Your task to perform on an android device: change the clock style Image 0: 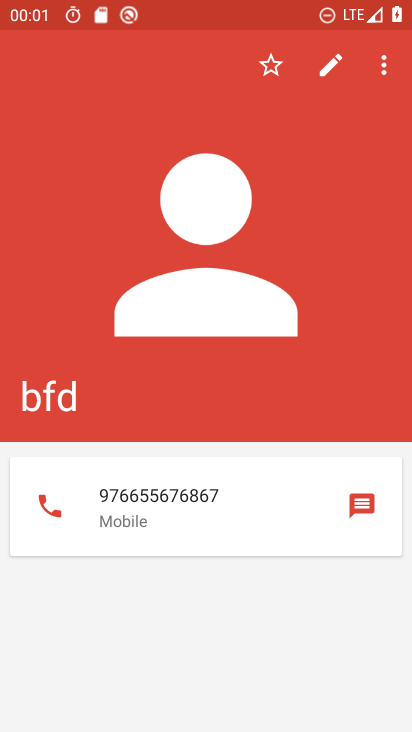
Step 0: press home button
Your task to perform on an android device: change the clock style Image 1: 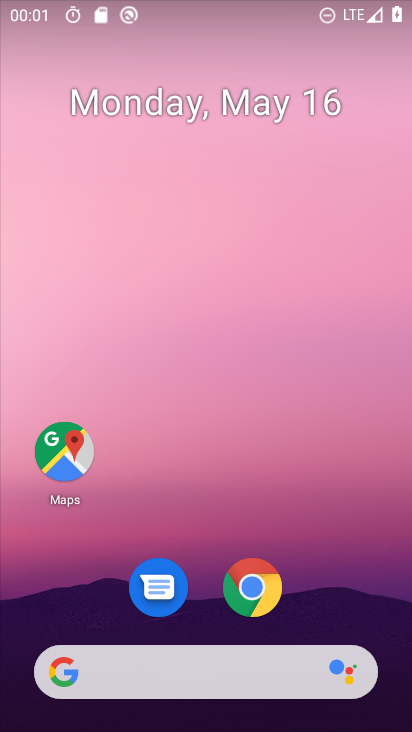
Step 1: drag from (196, 628) to (203, 212)
Your task to perform on an android device: change the clock style Image 2: 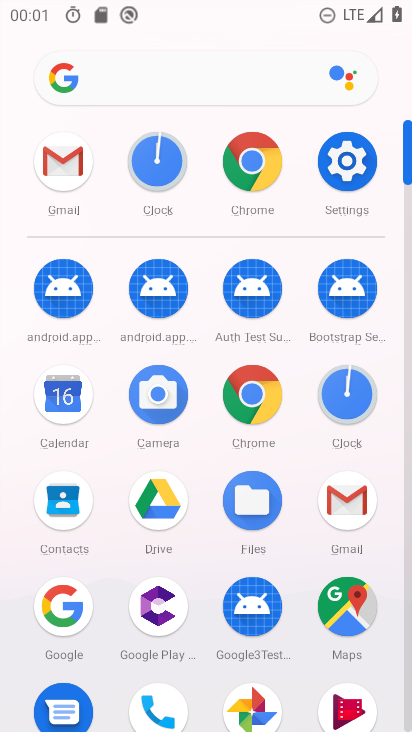
Step 2: click (351, 152)
Your task to perform on an android device: change the clock style Image 3: 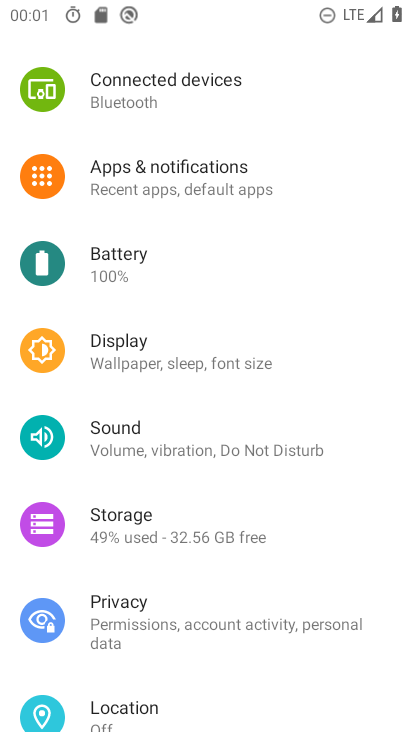
Step 3: press home button
Your task to perform on an android device: change the clock style Image 4: 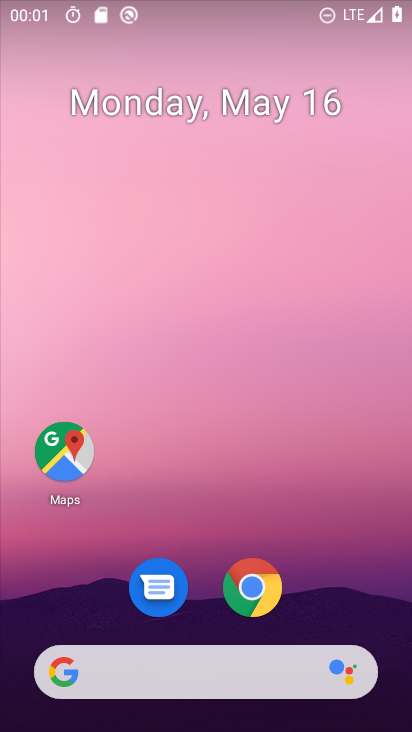
Step 4: drag from (207, 581) to (219, 195)
Your task to perform on an android device: change the clock style Image 5: 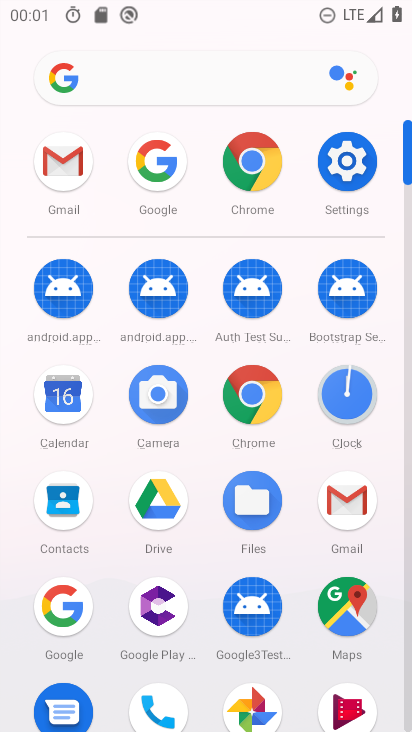
Step 5: click (331, 393)
Your task to perform on an android device: change the clock style Image 6: 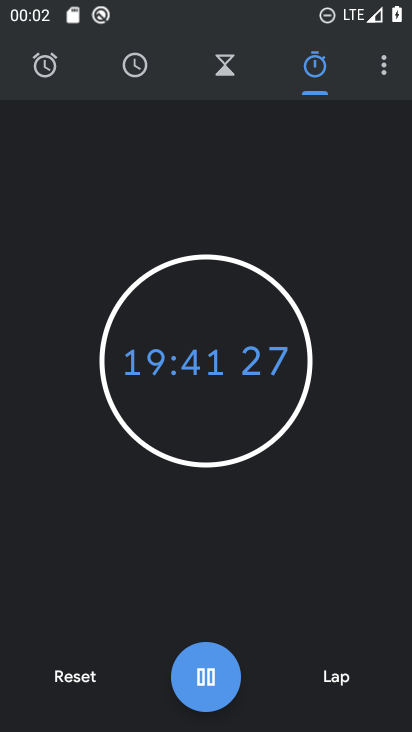
Step 6: click (381, 51)
Your task to perform on an android device: change the clock style Image 7: 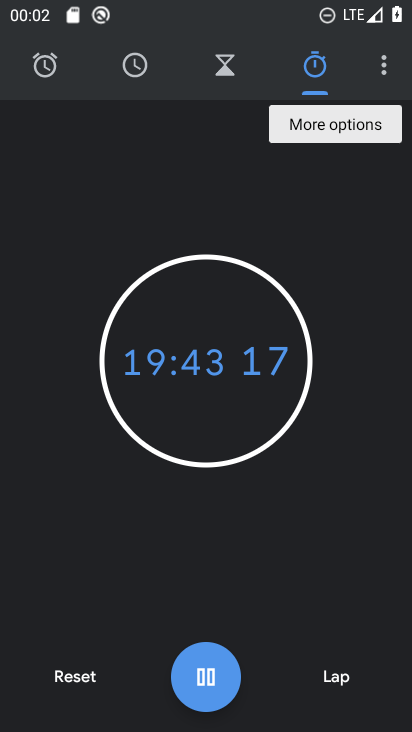
Step 7: click (381, 51)
Your task to perform on an android device: change the clock style Image 8: 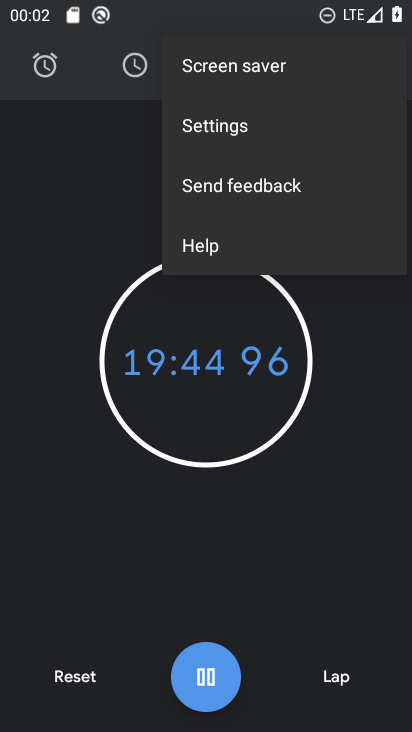
Step 8: click (285, 121)
Your task to perform on an android device: change the clock style Image 9: 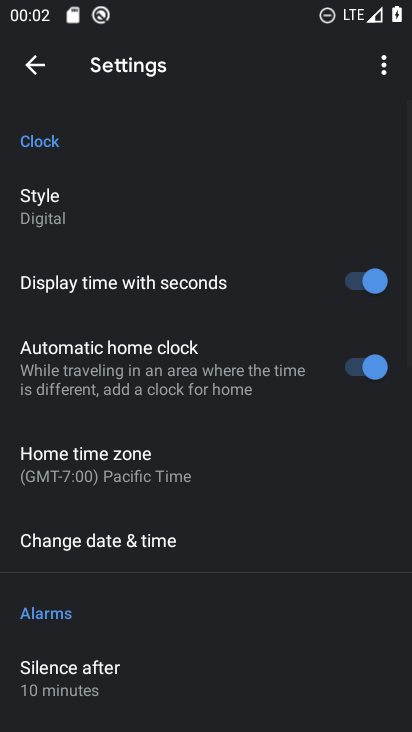
Step 9: click (78, 201)
Your task to perform on an android device: change the clock style Image 10: 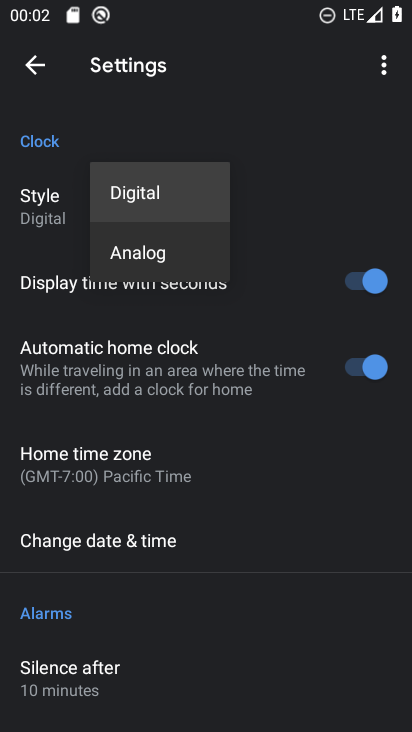
Step 10: click (122, 244)
Your task to perform on an android device: change the clock style Image 11: 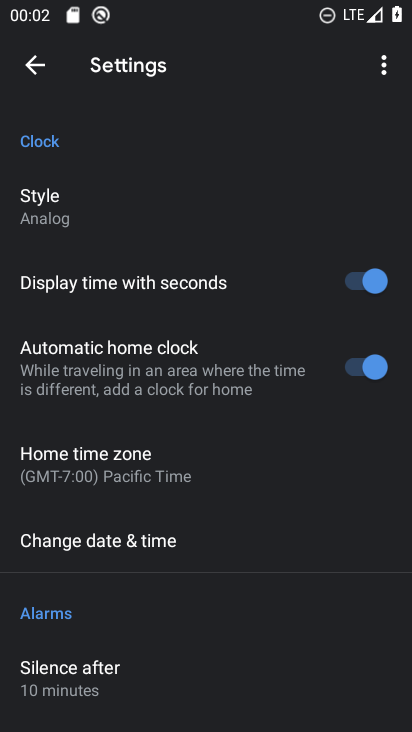
Step 11: task complete